Your task to perform on an android device: Toggle the flashlight Image 0: 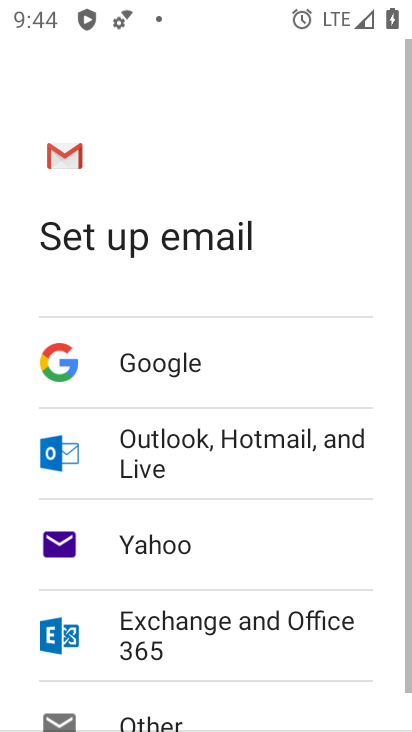
Step 0: press home button
Your task to perform on an android device: Toggle the flashlight Image 1: 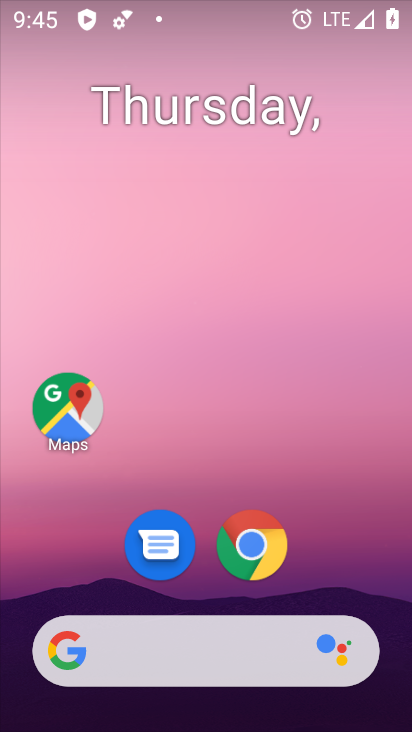
Step 1: drag from (330, 526) to (267, 80)
Your task to perform on an android device: Toggle the flashlight Image 2: 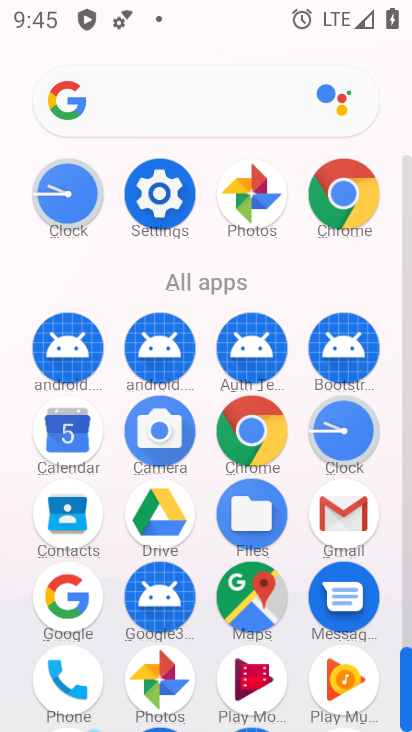
Step 2: click (153, 187)
Your task to perform on an android device: Toggle the flashlight Image 3: 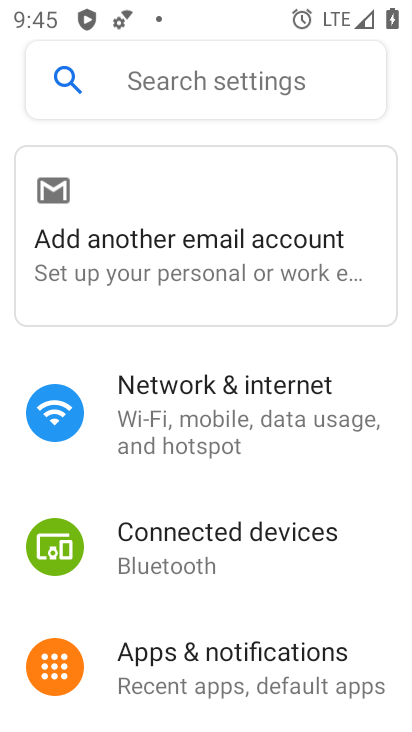
Step 3: task complete